Your task to perform on an android device: change notification settings in the gmail app Image 0: 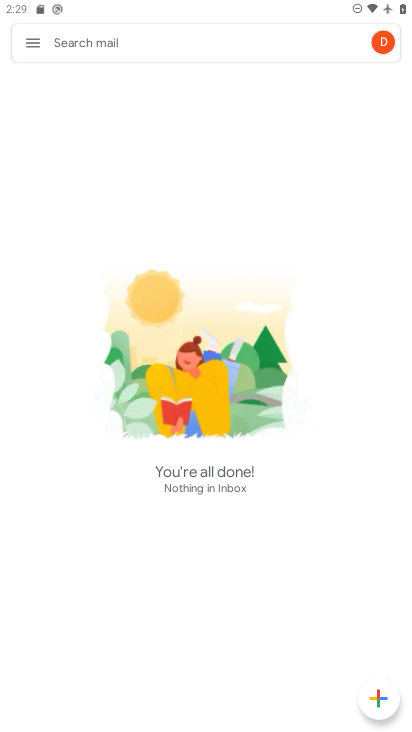
Step 0: press home button
Your task to perform on an android device: change notification settings in the gmail app Image 1: 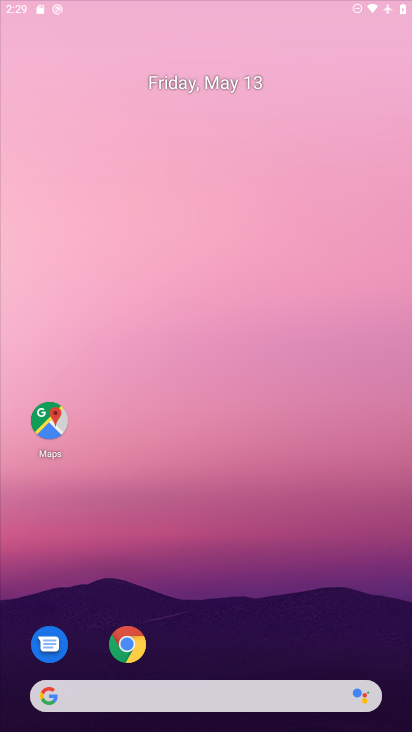
Step 1: drag from (321, 599) to (209, 56)
Your task to perform on an android device: change notification settings in the gmail app Image 2: 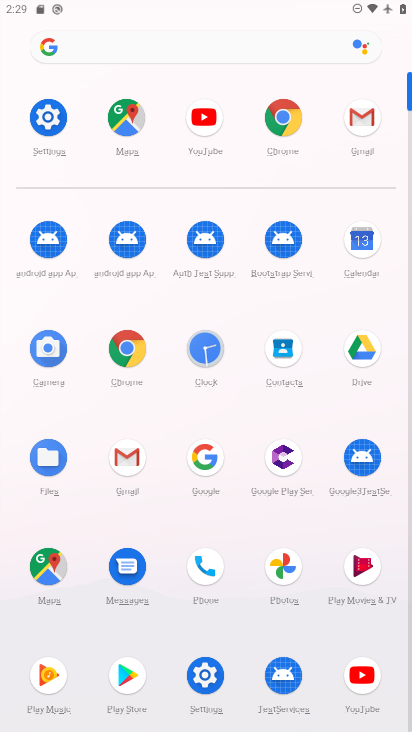
Step 2: click (122, 461)
Your task to perform on an android device: change notification settings in the gmail app Image 3: 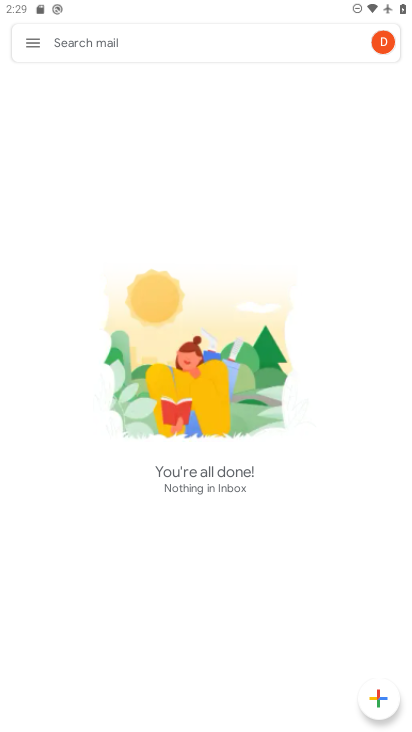
Step 3: click (19, 38)
Your task to perform on an android device: change notification settings in the gmail app Image 4: 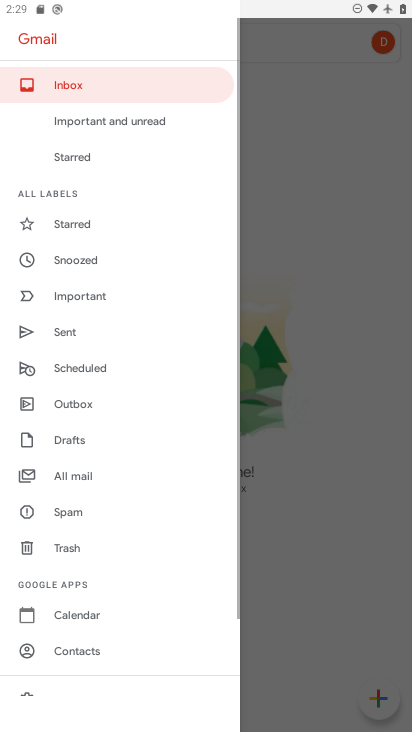
Step 4: drag from (77, 647) to (114, 107)
Your task to perform on an android device: change notification settings in the gmail app Image 5: 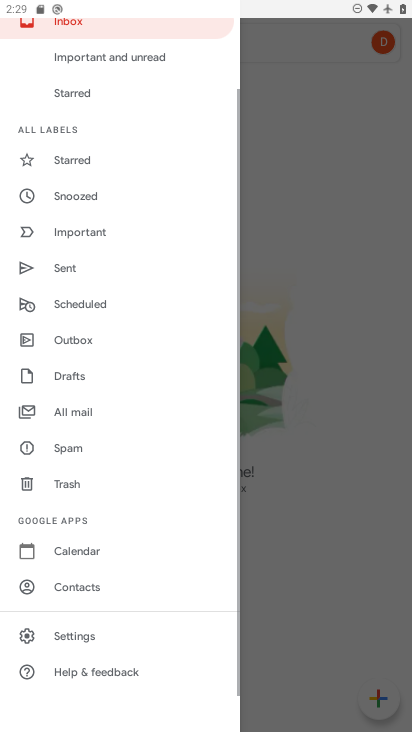
Step 5: click (133, 646)
Your task to perform on an android device: change notification settings in the gmail app Image 6: 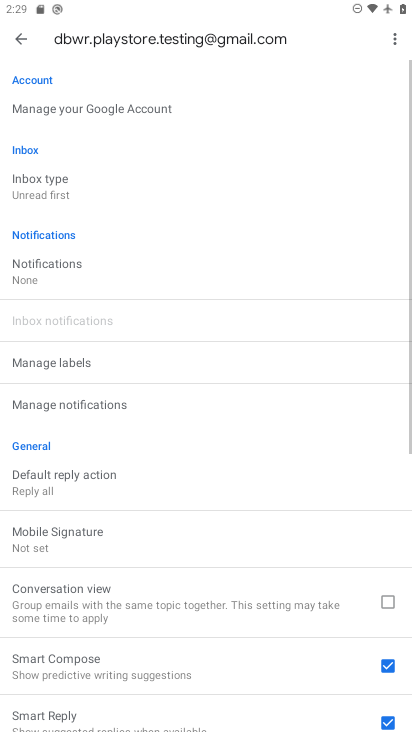
Step 6: click (117, 269)
Your task to perform on an android device: change notification settings in the gmail app Image 7: 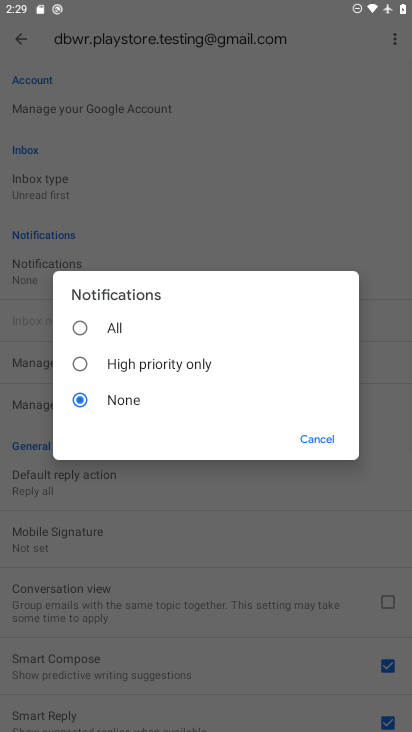
Step 7: click (109, 328)
Your task to perform on an android device: change notification settings in the gmail app Image 8: 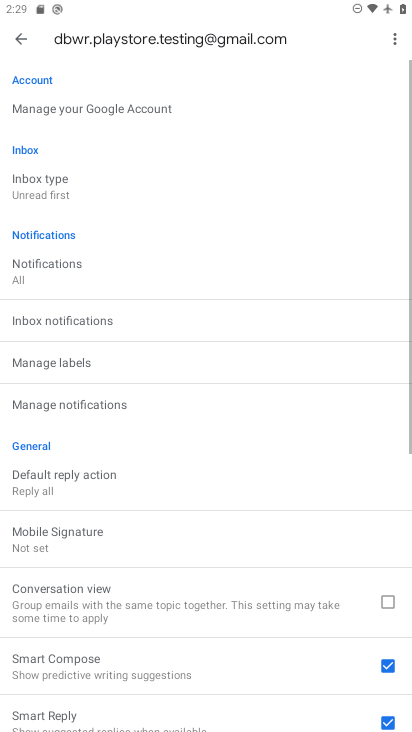
Step 8: task complete